Your task to perform on an android device: turn off wifi Image 0: 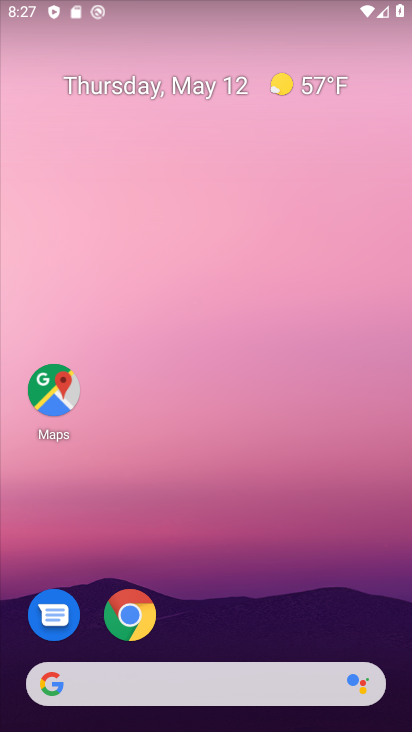
Step 0: drag from (231, 594) to (227, 37)
Your task to perform on an android device: turn off wifi Image 1: 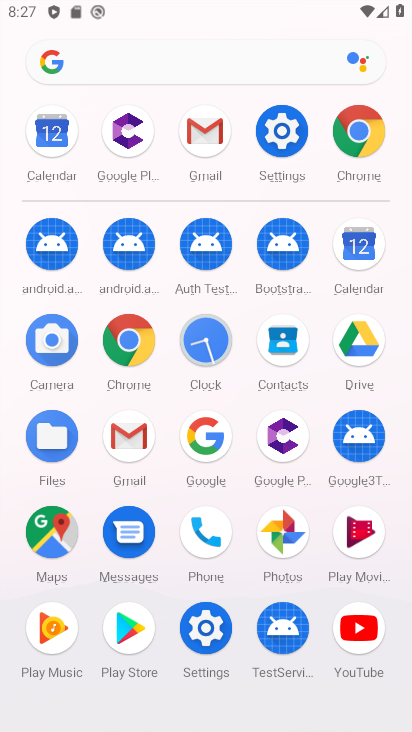
Step 1: drag from (7, 538) to (7, 259)
Your task to perform on an android device: turn off wifi Image 2: 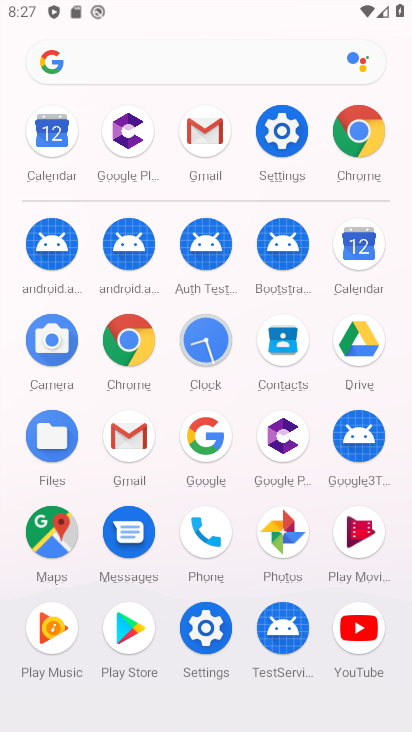
Step 2: click (205, 625)
Your task to perform on an android device: turn off wifi Image 3: 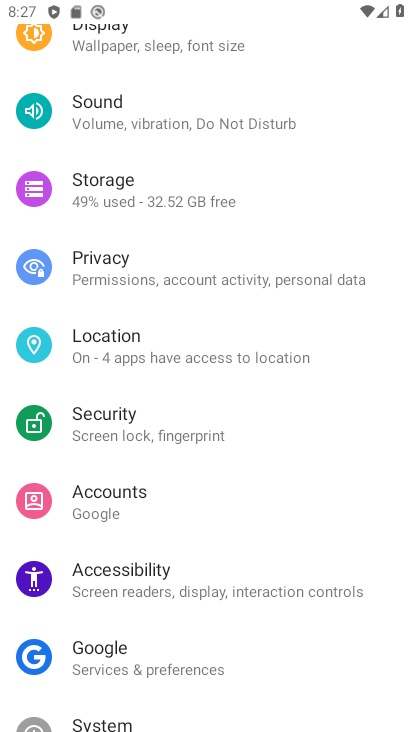
Step 3: drag from (215, 162) to (219, 625)
Your task to perform on an android device: turn off wifi Image 4: 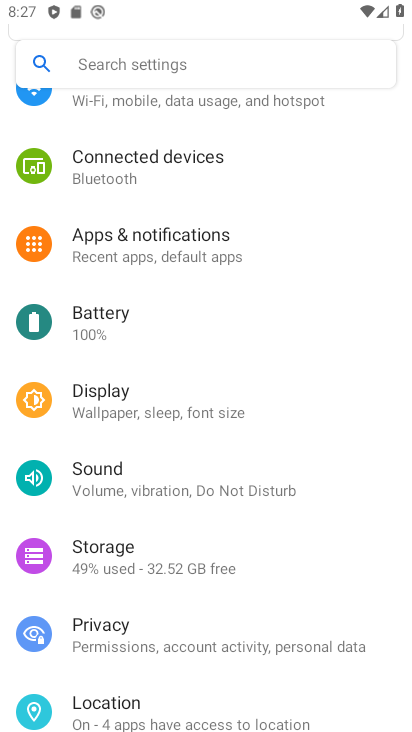
Step 4: drag from (262, 189) to (242, 574)
Your task to perform on an android device: turn off wifi Image 5: 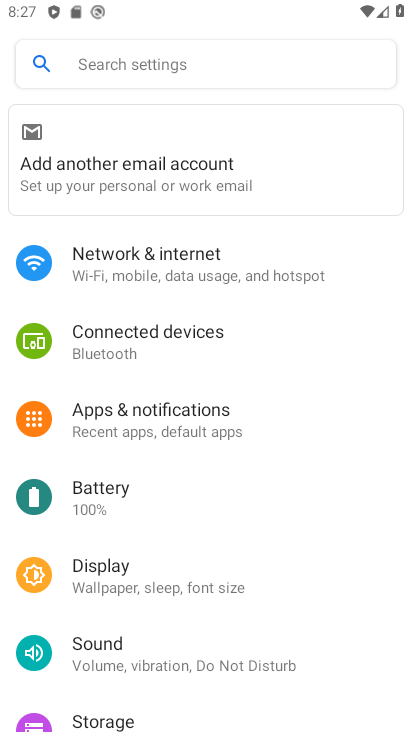
Step 5: click (170, 260)
Your task to perform on an android device: turn off wifi Image 6: 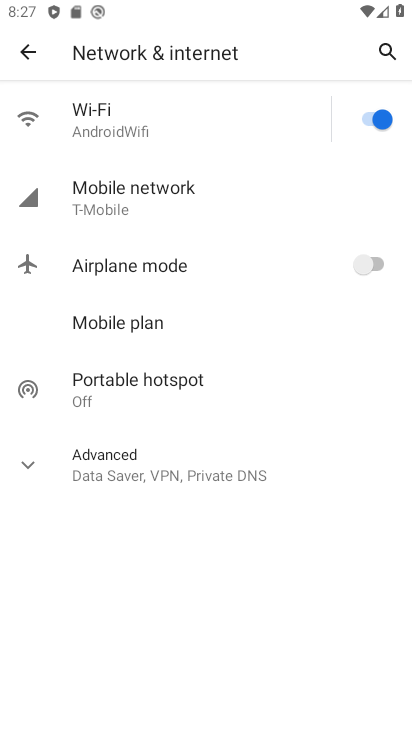
Step 6: click (374, 111)
Your task to perform on an android device: turn off wifi Image 7: 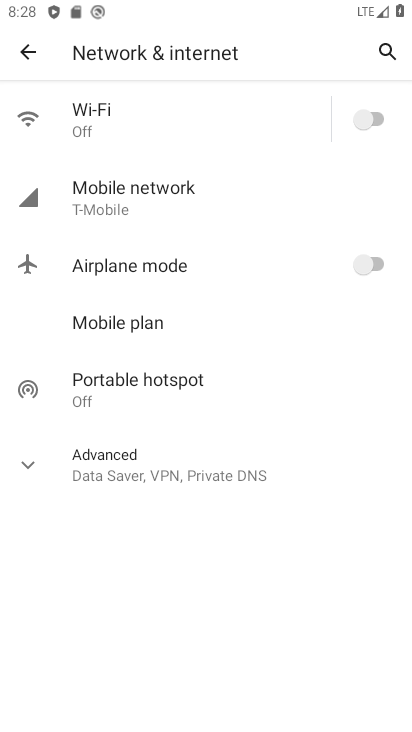
Step 7: task complete